Your task to perform on an android device: turn pop-ups on in chrome Image 0: 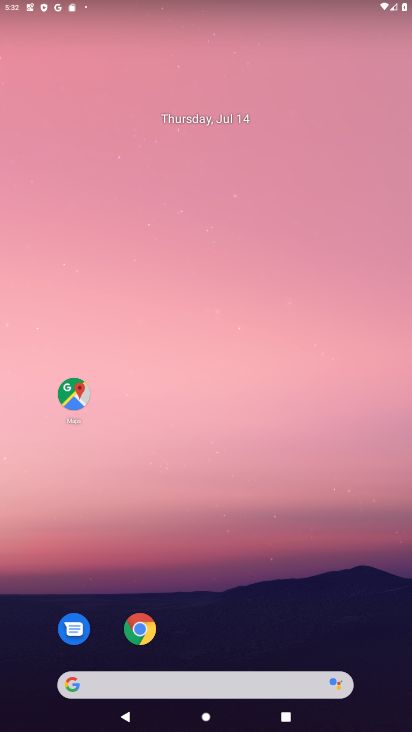
Step 0: drag from (188, 680) to (196, 81)
Your task to perform on an android device: turn pop-ups on in chrome Image 1: 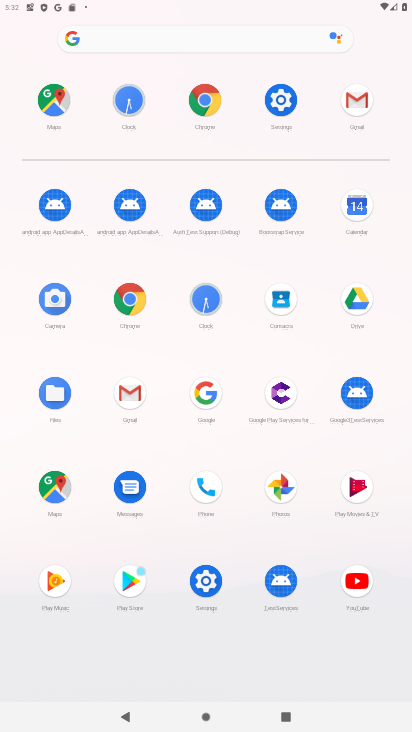
Step 1: click (132, 295)
Your task to perform on an android device: turn pop-ups on in chrome Image 2: 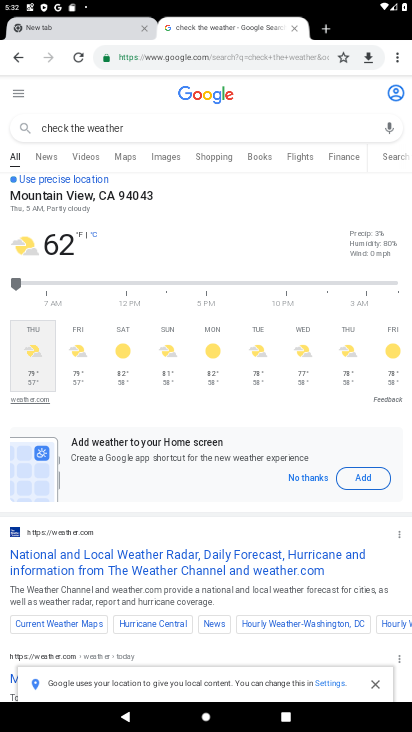
Step 2: drag from (391, 55) to (286, 346)
Your task to perform on an android device: turn pop-ups on in chrome Image 3: 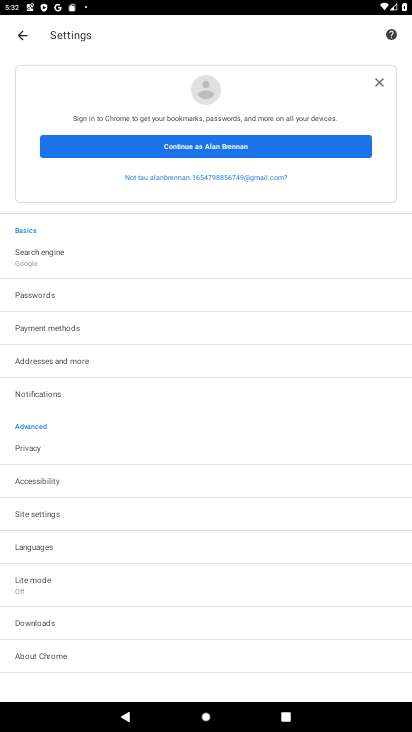
Step 3: click (59, 518)
Your task to perform on an android device: turn pop-ups on in chrome Image 4: 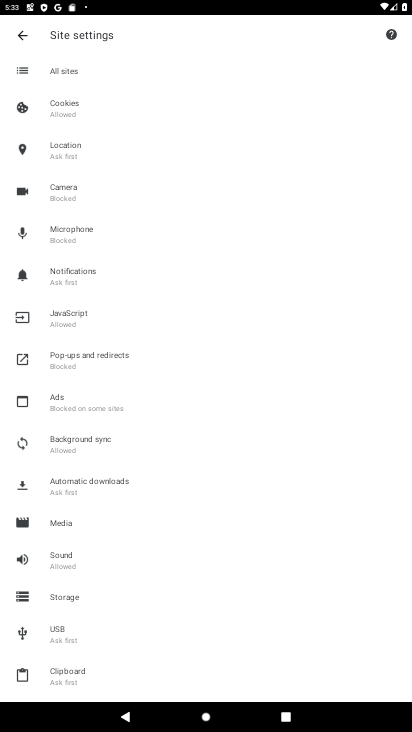
Step 4: click (87, 365)
Your task to perform on an android device: turn pop-ups on in chrome Image 5: 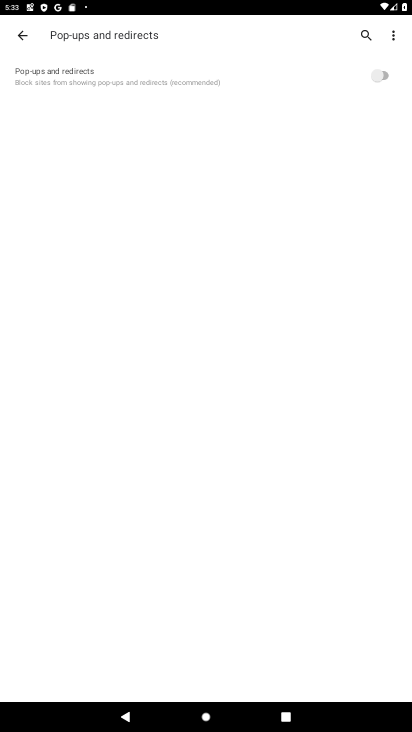
Step 5: task complete